Your task to perform on an android device: turn pop-ups on in chrome Image 0: 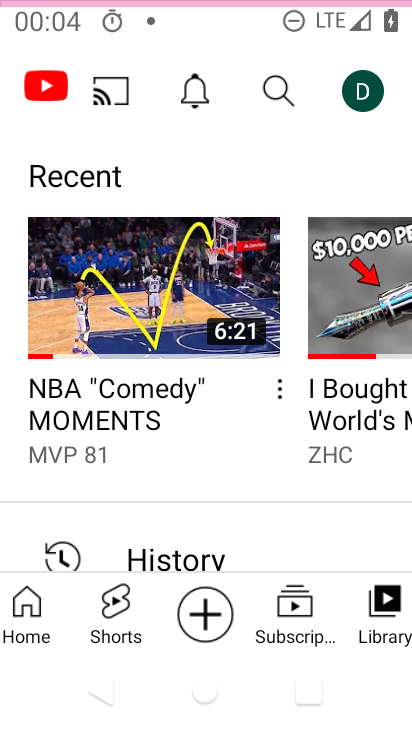
Step 0: click (407, 538)
Your task to perform on an android device: turn pop-ups on in chrome Image 1: 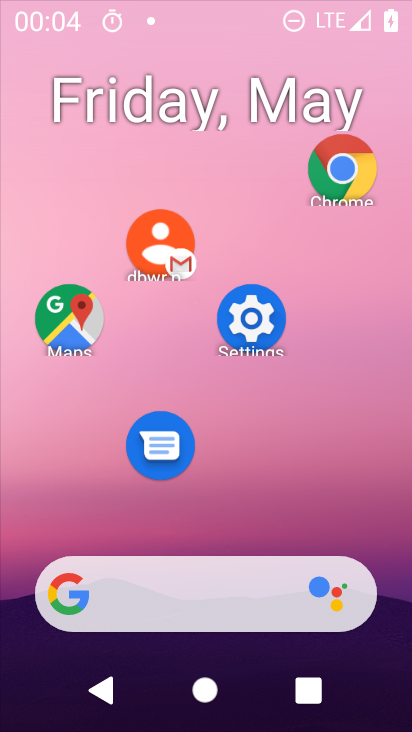
Step 1: drag from (175, 568) to (224, 191)
Your task to perform on an android device: turn pop-ups on in chrome Image 2: 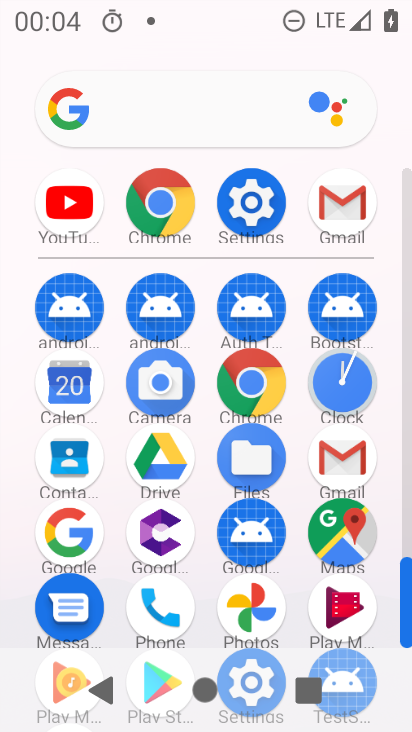
Step 2: click (258, 378)
Your task to perform on an android device: turn pop-ups on in chrome Image 3: 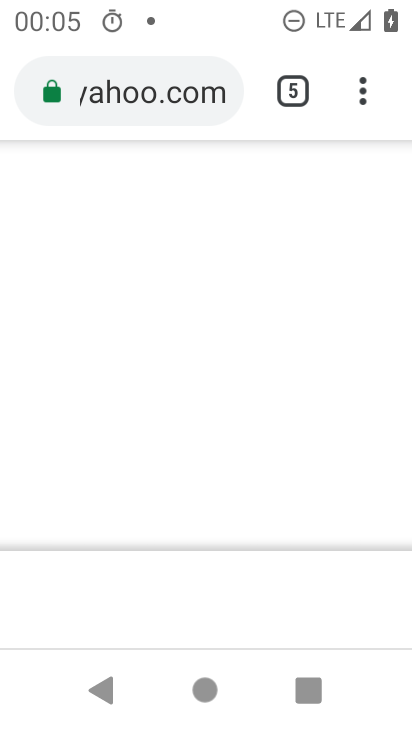
Step 3: click (368, 94)
Your task to perform on an android device: turn pop-ups on in chrome Image 4: 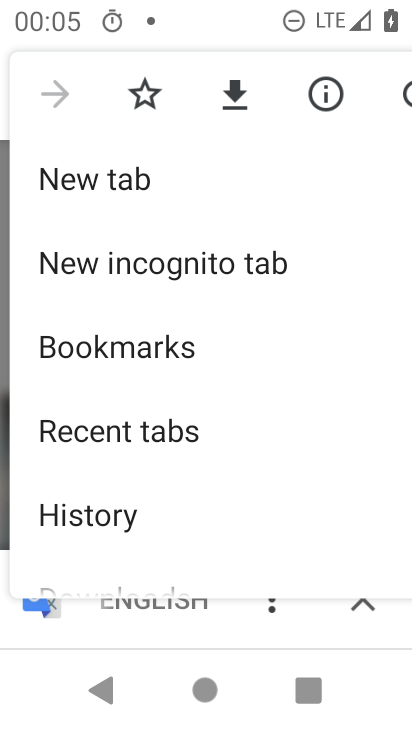
Step 4: drag from (231, 500) to (350, 32)
Your task to perform on an android device: turn pop-ups on in chrome Image 5: 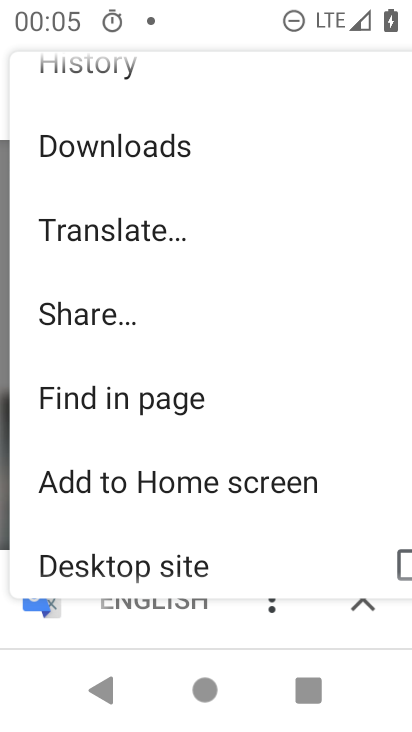
Step 5: drag from (142, 499) to (365, 73)
Your task to perform on an android device: turn pop-ups on in chrome Image 6: 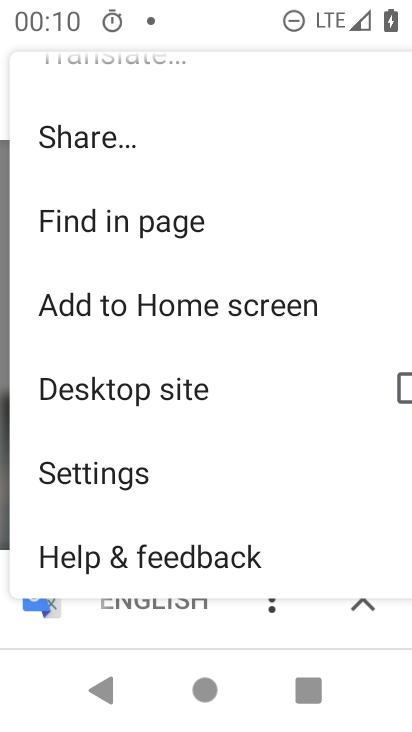
Step 6: click (171, 472)
Your task to perform on an android device: turn pop-ups on in chrome Image 7: 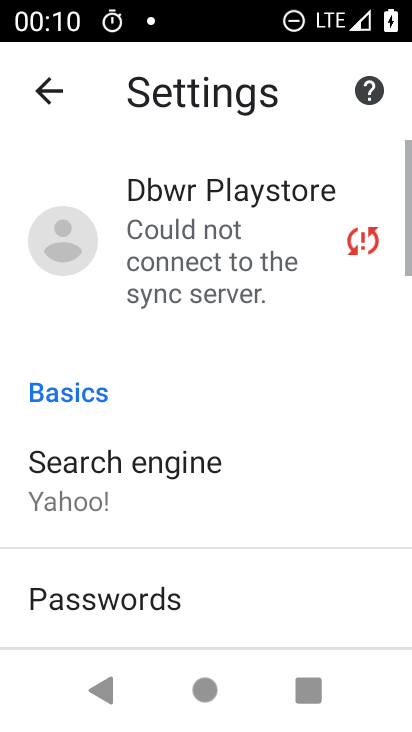
Step 7: drag from (231, 498) to (244, 233)
Your task to perform on an android device: turn pop-ups on in chrome Image 8: 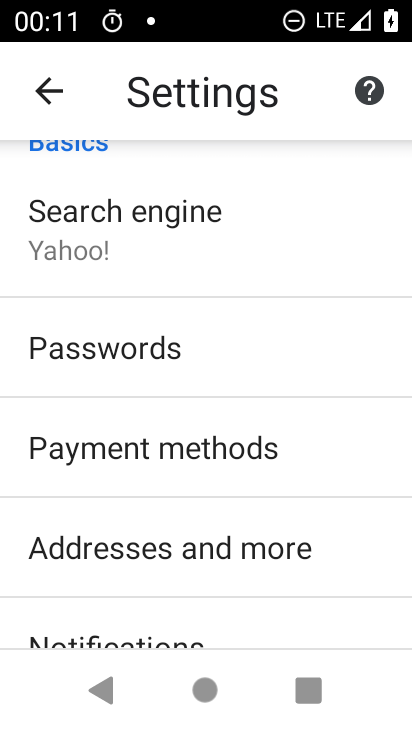
Step 8: drag from (217, 563) to (301, 139)
Your task to perform on an android device: turn pop-ups on in chrome Image 9: 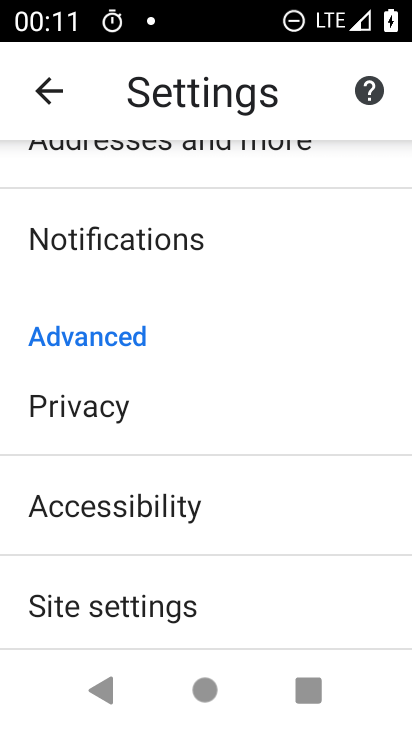
Step 9: drag from (158, 592) to (187, 321)
Your task to perform on an android device: turn pop-ups on in chrome Image 10: 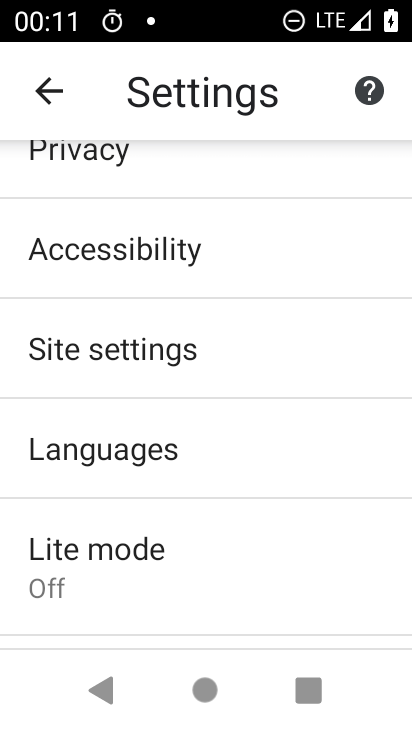
Step 10: click (120, 359)
Your task to perform on an android device: turn pop-ups on in chrome Image 11: 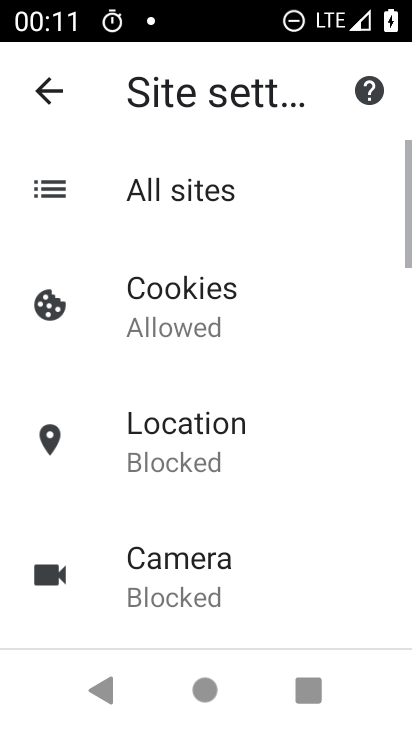
Step 11: drag from (205, 577) to (319, 51)
Your task to perform on an android device: turn pop-ups on in chrome Image 12: 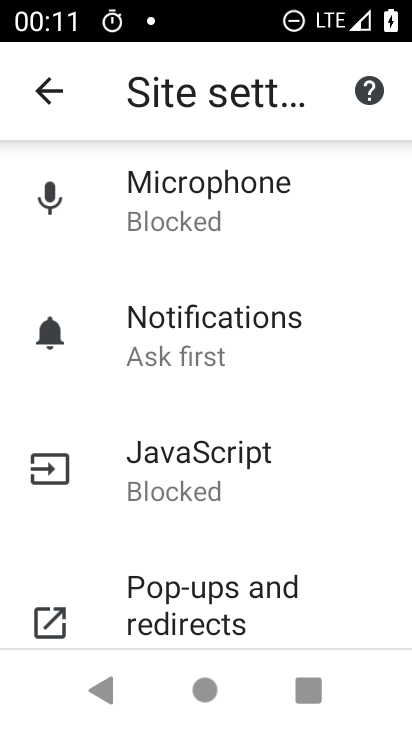
Step 12: click (203, 572)
Your task to perform on an android device: turn pop-ups on in chrome Image 13: 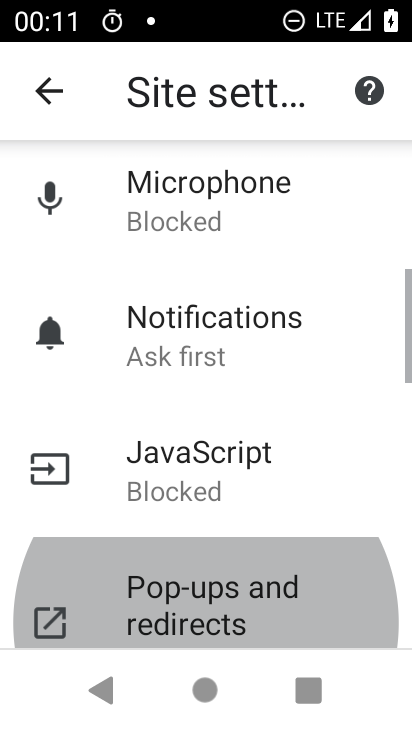
Step 13: click (203, 572)
Your task to perform on an android device: turn pop-ups on in chrome Image 14: 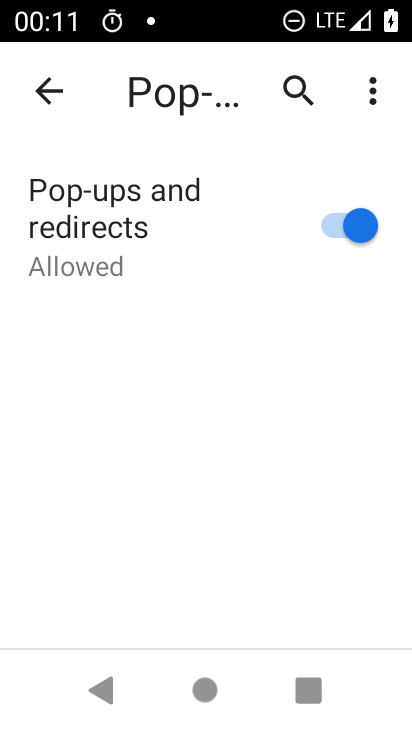
Step 14: task complete